Your task to perform on an android device: Open ESPN.com Image 0: 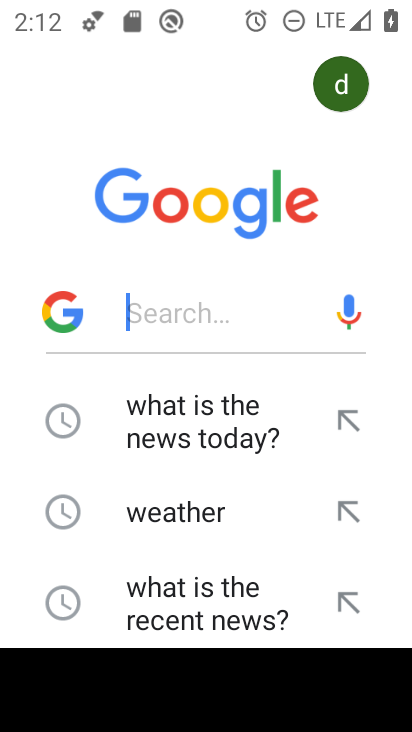
Step 0: press back button
Your task to perform on an android device: Open ESPN.com Image 1: 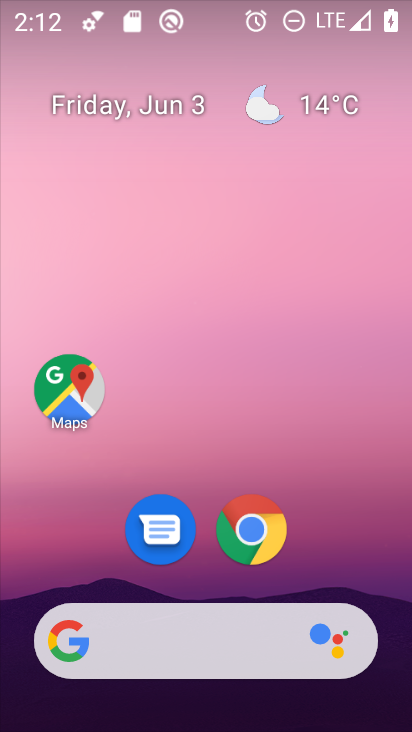
Step 1: drag from (376, 571) to (364, 222)
Your task to perform on an android device: Open ESPN.com Image 2: 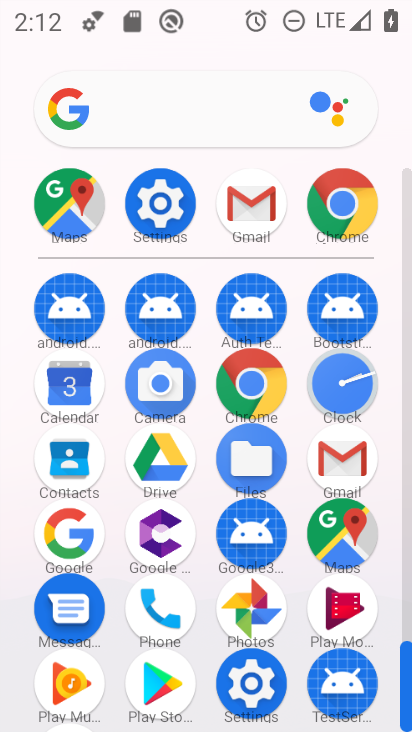
Step 2: click (259, 385)
Your task to perform on an android device: Open ESPN.com Image 3: 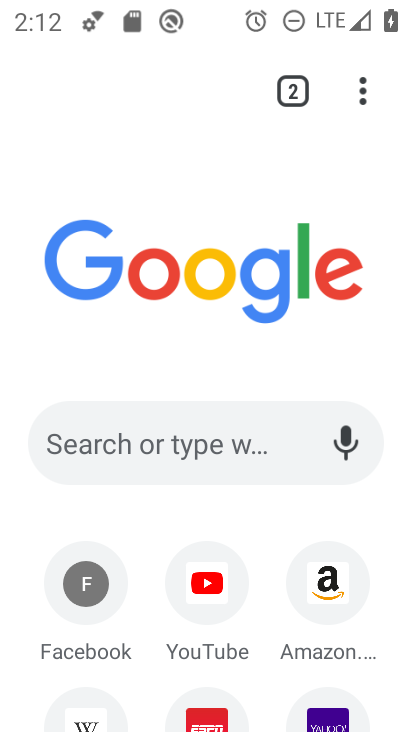
Step 3: click (221, 437)
Your task to perform on an android device: Open ESPN.com Image 4: 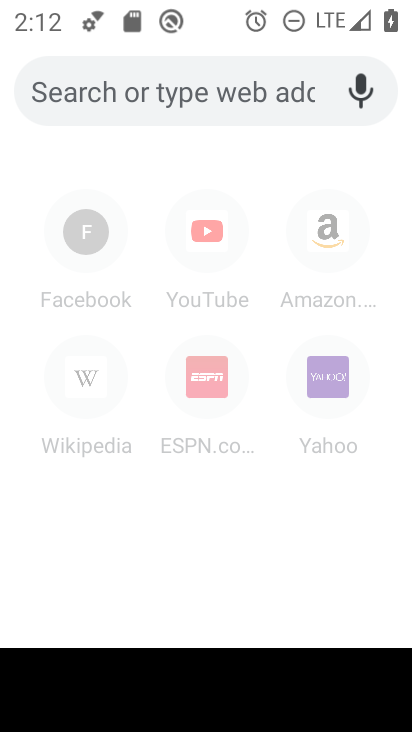
Step 4: type "espn.com"
Your task to perform on an android device: Open ESPN.com Image 5: 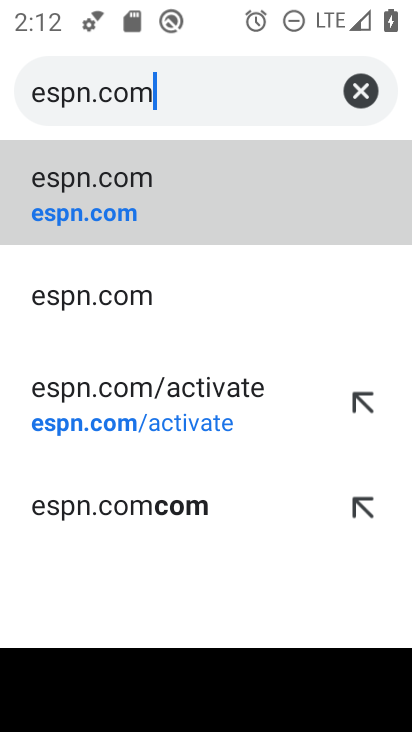
Step 5: click (153, 219)
Your task to perform on an android device: Open ESPN.com Image 6: 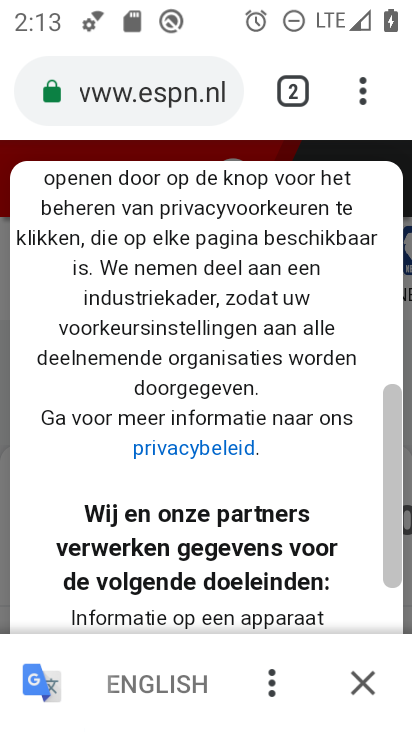
Step 6: task complete